Your task to perform on an android device: Go to CNN.com Image 0: 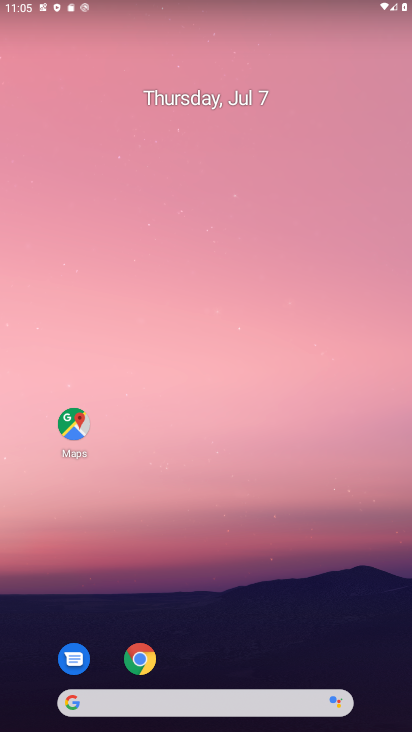
Step 0: press home button
Your task to perform on an android device: Go to CNN.com Image 1: 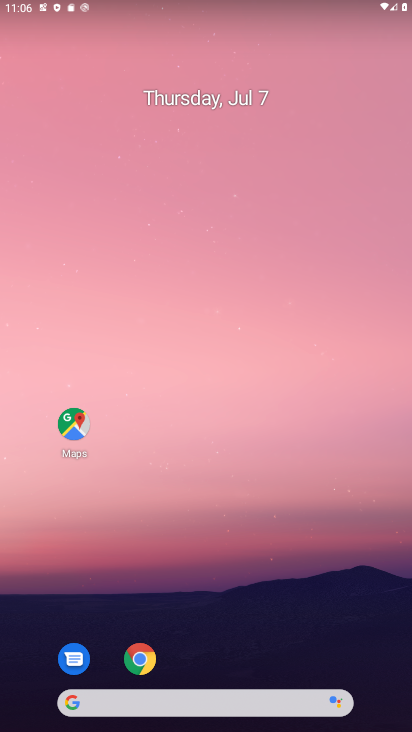
Step 1: drag from (219, 670) to (317, 12)
Your task to perform on an android device: Go to CNN.com Image 2: 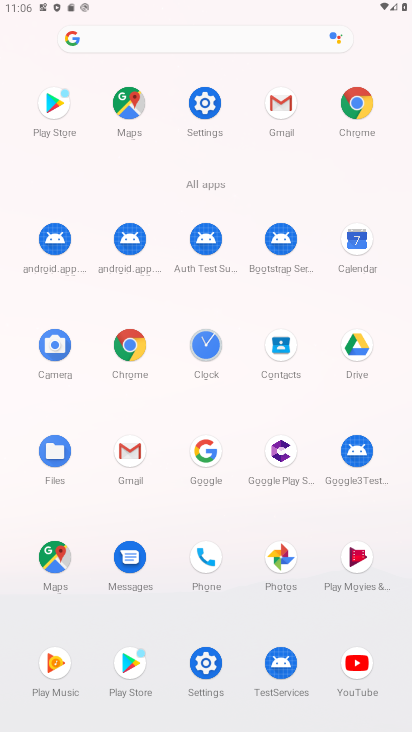
Step 2: click (350, 97)
Your task to perform on an android device: Go to CNN.com Image 3: 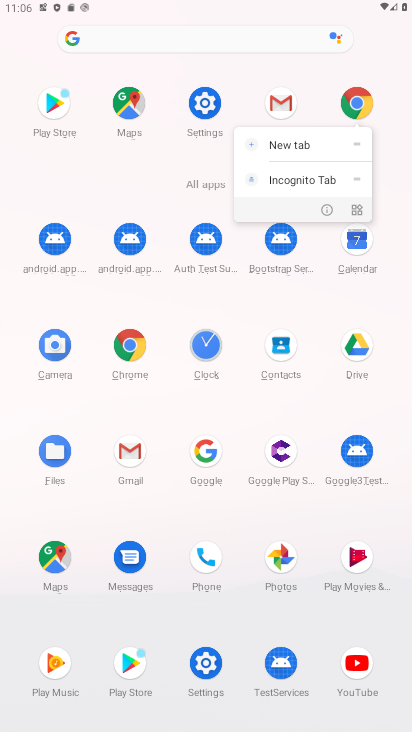
Step 3: click (352, 96)
Your task to perform on an android device: Go to CNN.com Image 4: 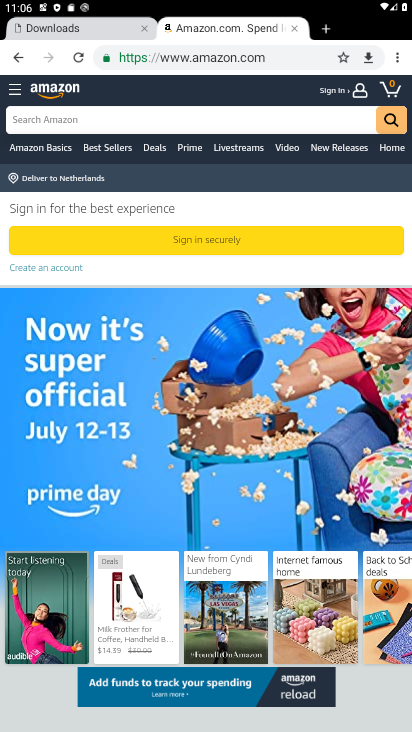
Step 4: click (320, 26)
Your task to perform on an android device: Go to CNN.com Image 5: 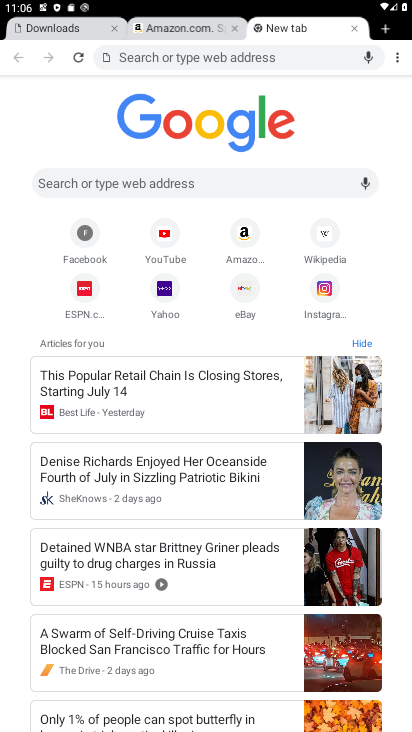
Step 5: click (218, 55)
Your task to perform on an android device: Go to CNN.com Image 6: 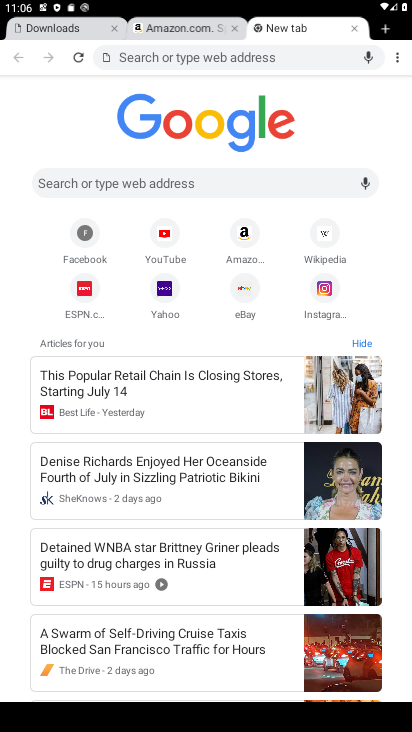
Step 6: type "cnn.com"
Your task to perform on an android device: Go to CNN.com Image 7: 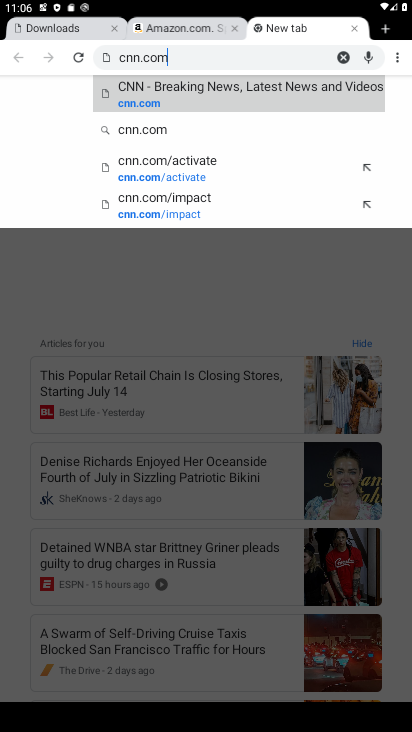
Step 7: type ""
Your task to perform on an android device: Go to CNN.com Image 8: 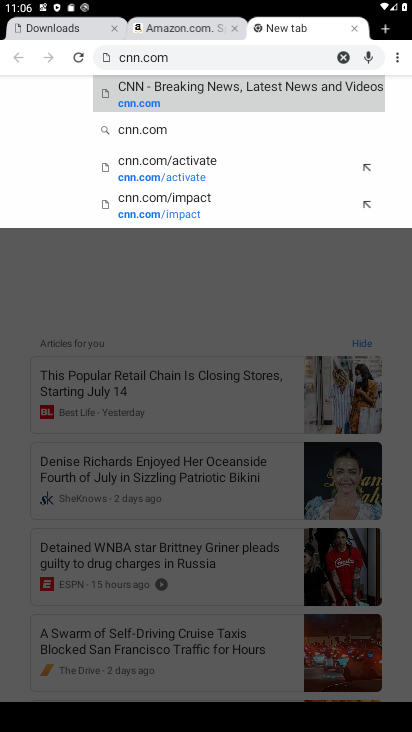
Step 8: click (174, 98)
Your task to perform on an android device: Go to CNN.com Image 9: 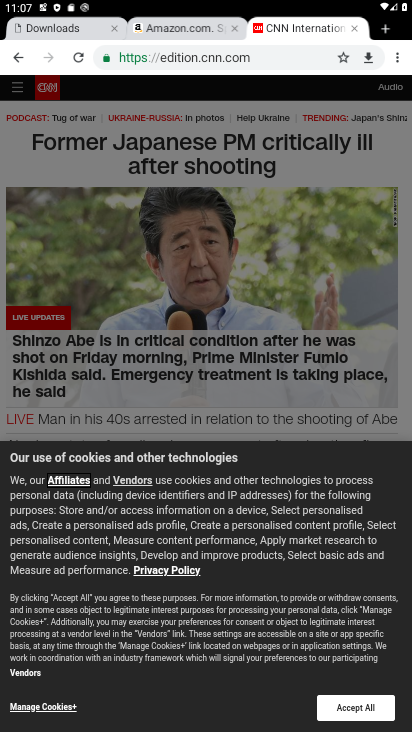
Step 9: click (358, 705)
Your task to perform on an android device: Go to CNN.com Image 10: 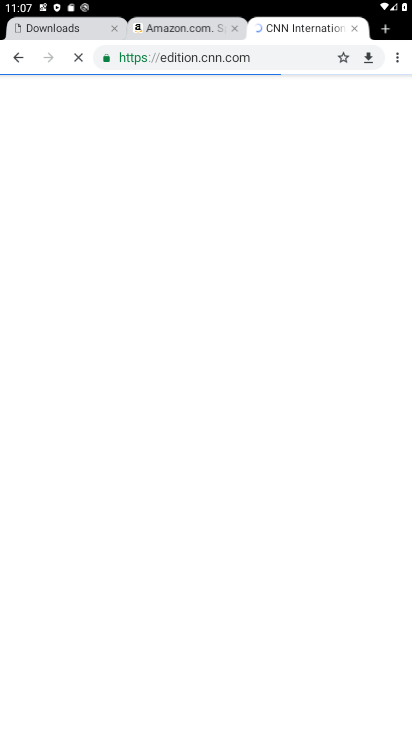
Step 10: task complete